Your task to perform on an android device: turn off location Image 0: 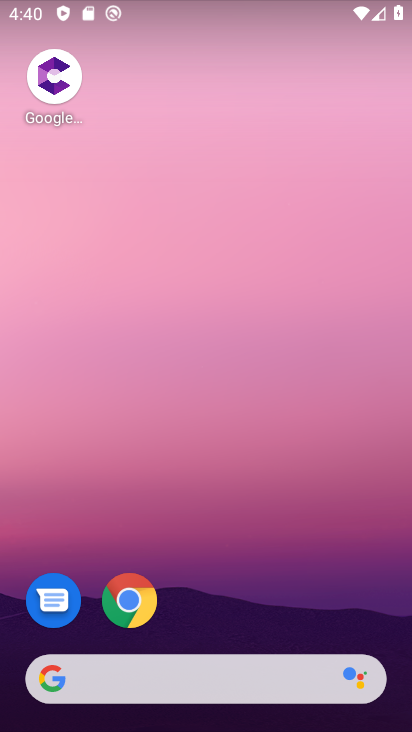
Step 0: drag from (218, 589) to (191, 237)
Your task to perform on an android device: turn off location Image 1: 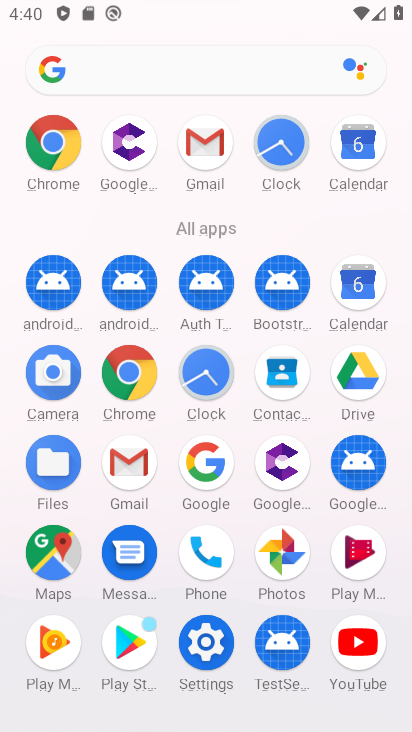
Step 1: click (220, 615)
Your task to perform on an android device: turn off location Image 2: 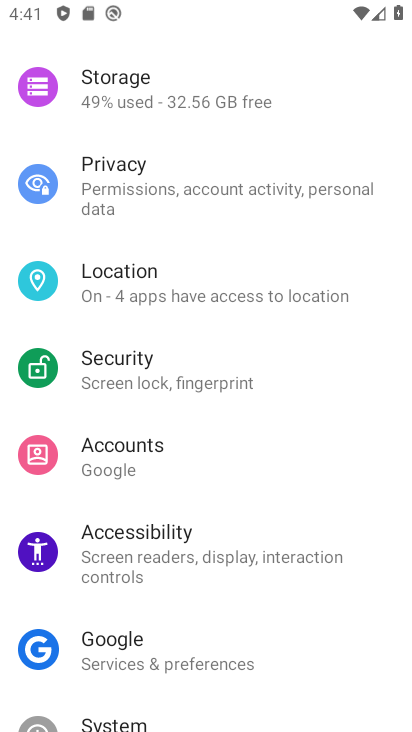
Step 2: click (188, 300)
Your task to perform on an android device: turn off location Image 3: 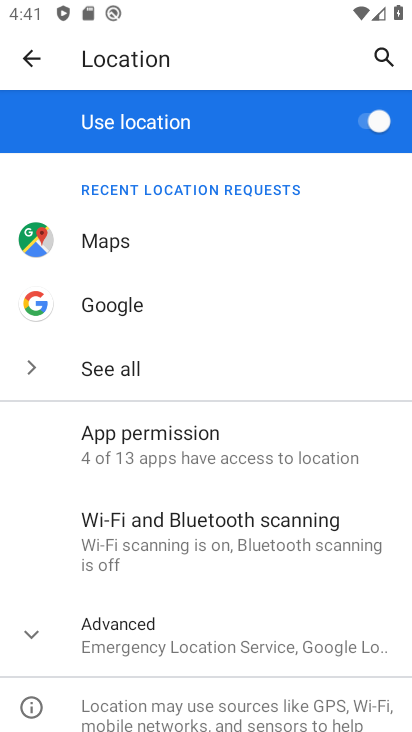
Step 3: drag from (152, 574) to (147, 508)
Your task to perform on an android device: turn off location Image 4: 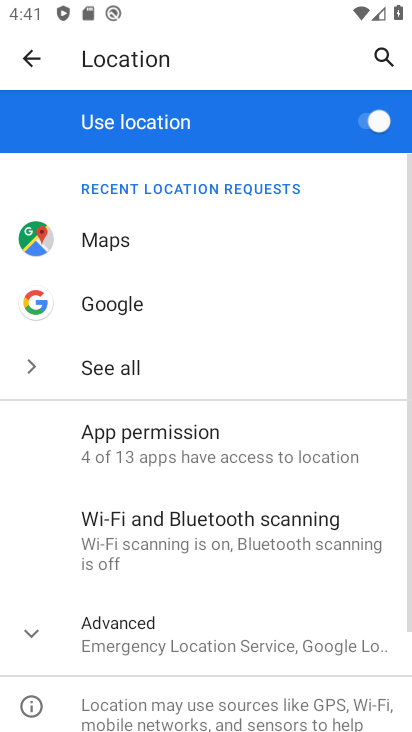
Step 4: click (367, 121)
Your task to perform on an android device: turn off location Image 5: 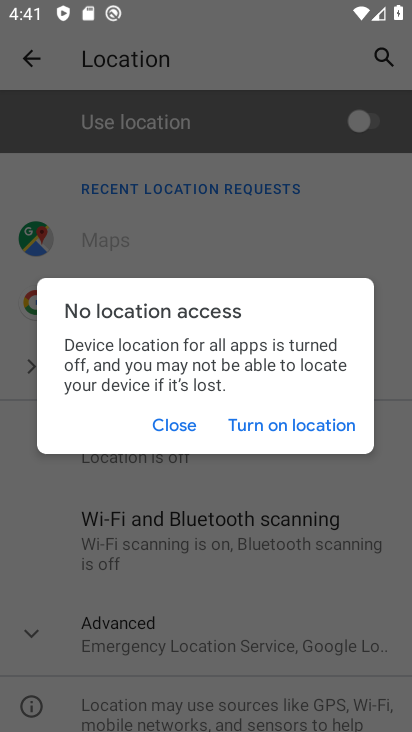
Step 5: task complete